Your task to perform on an android device: create a new album in the google photos Image 0: 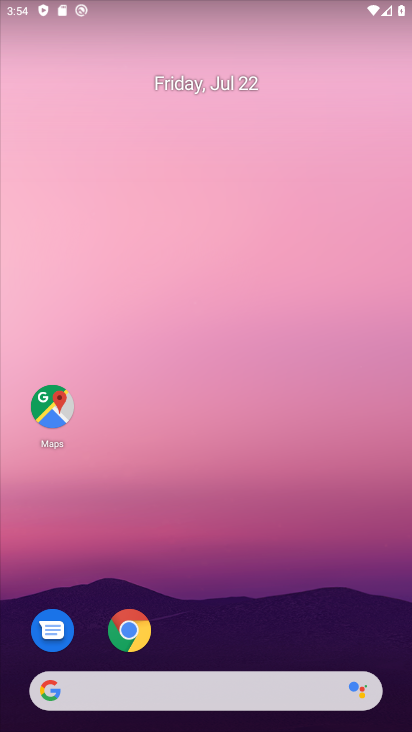
Step 0: drag from (198, 576) to (300, 4)
Your task to perform on an android device: create a new album in the google photos Image 1: 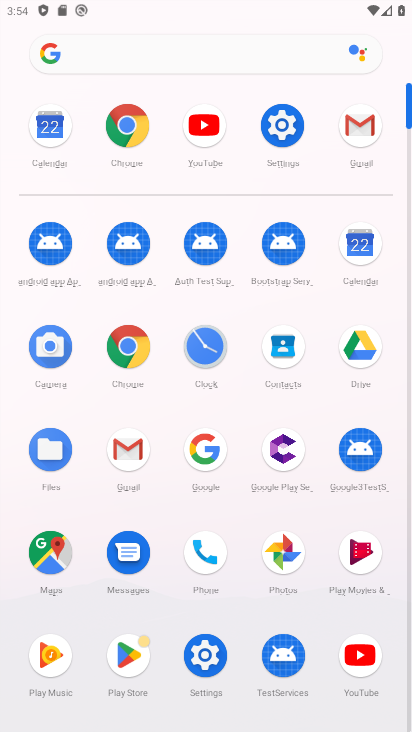
Step 1: click (282, 561)
Your task to perform on an android device: create a new album in the google photos Image 2: 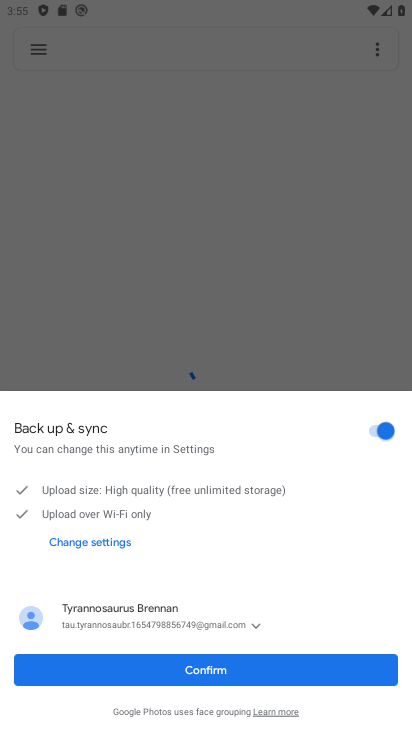
Step 2: click (209, 667)
Your task to perform on an android device: create a new album in the google photos Image 3: 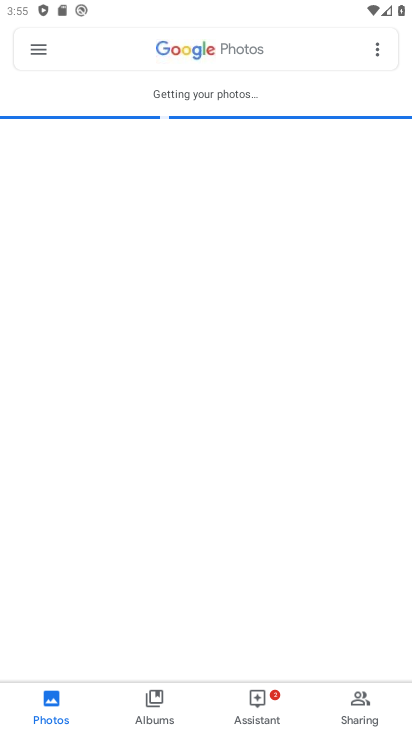
Step 3: click (158, 724)
Your task to perform on an android device: create a new album in the google photos Image 4: 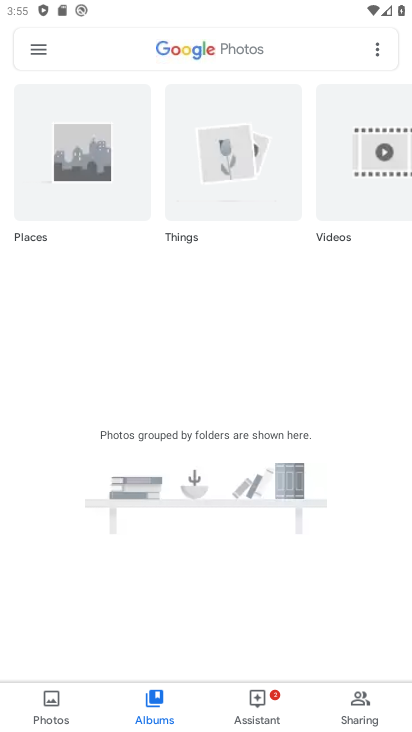
Step 4: task complete